Your task to perform on an android device: toggle javascript in the chrome app Image 0: 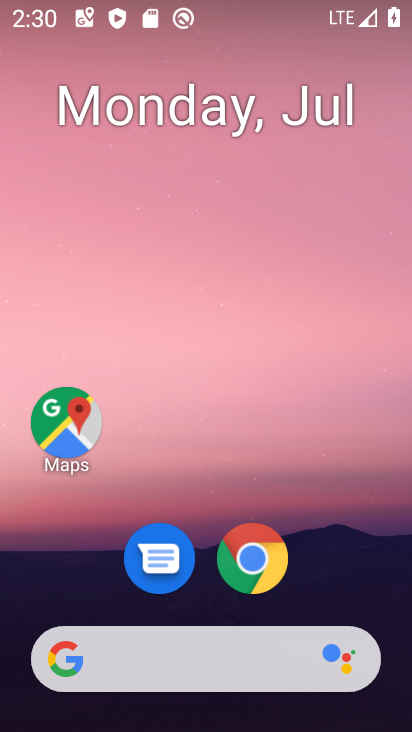
Step 0: press home button
Your task to perform on an android device: toggle javascript in the chrome app Image 1: 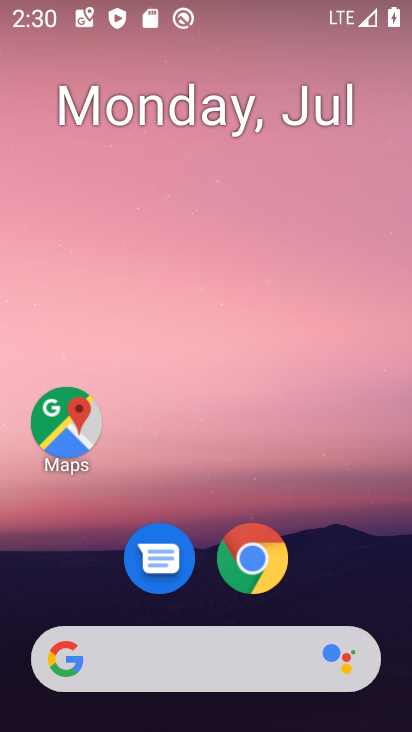
Step 1: drag from (364, 578) to (362, 190)
Your task to perform on an android device: toggle javascript in the chrome app Image 2: 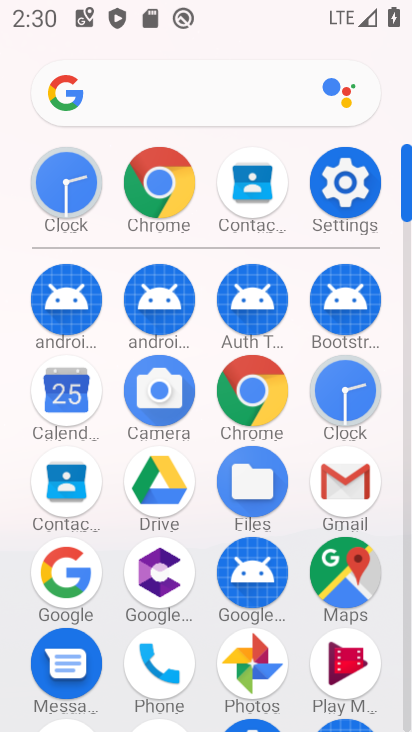
Step 2: click (264, 400)
Your task to perform on an android device: toggle javascript in the chrome app Image 3: 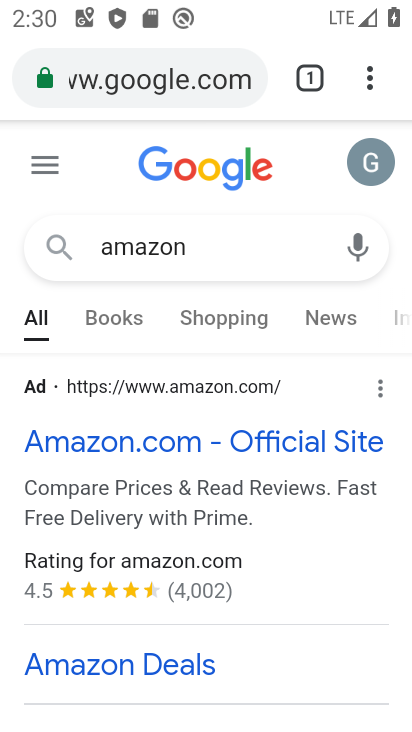
Step 3: click (367, 86)
Your task to perform on an android device: toggle javascript in the chrome app Image 4: 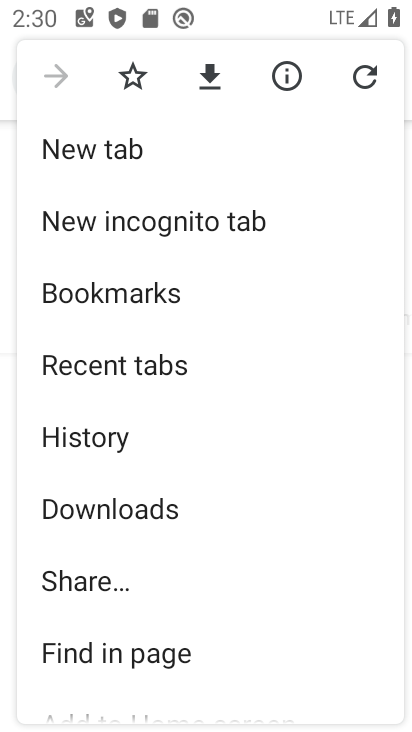
Step 4: drag from (315, 482) to (313, 355)
Your task to perform on an android device: toggle javascript in the chrome app Image 5: 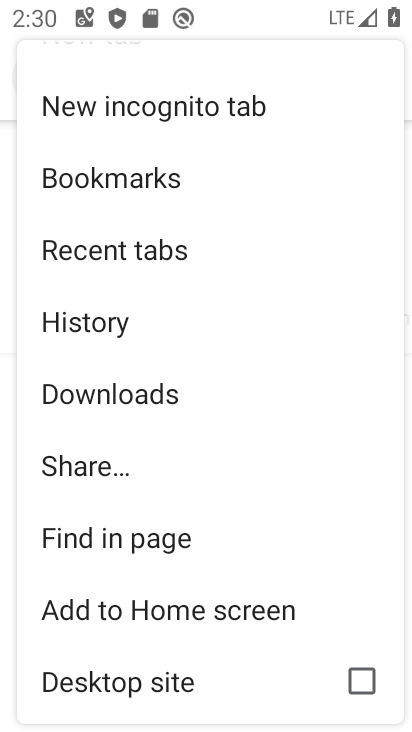
Step 5: drag from (284, 552) to (289, 403)
Your task to perform on an android device: toggle javascript in the chrome app Image 6: 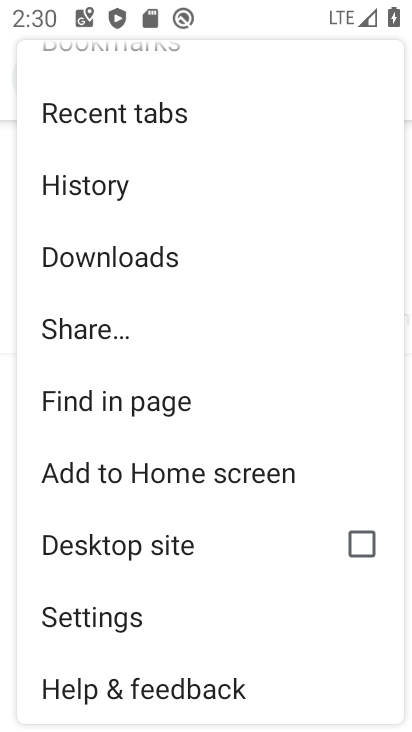
Step 6: drag from (254, 596) to (257, 436)
Your task to perform on an android device: toggle javascript in the chrome app Image 7: 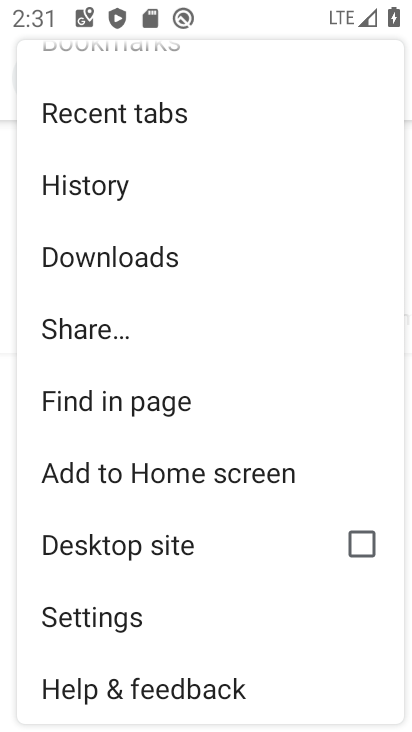
Step 7: click (217, 616)
Your task to perform on an android device: toggle javascript in the chrome app Image 8: 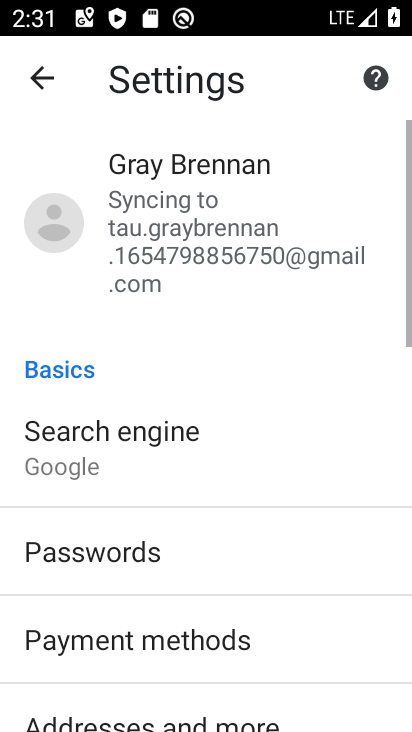
Step 8: drag from (327, 572) to (331, 459)
Your task to perform on an android device: toggle javascript in the chrome app Image 9: 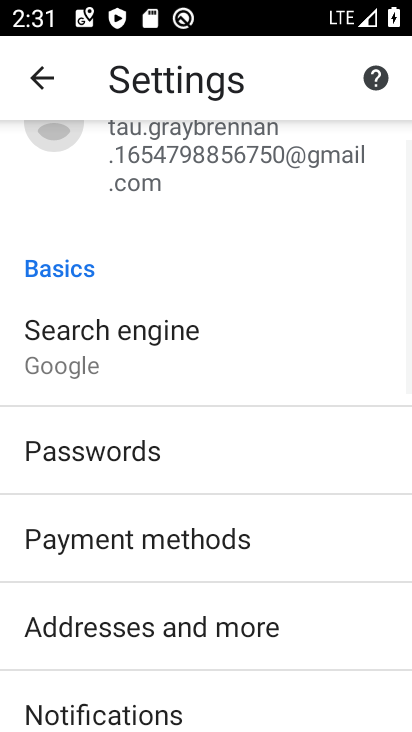
Step 9: drag from (323, 544) to (312, 447)
Your task to perform on an android device: toggle javascript in the chrome app Image 10: 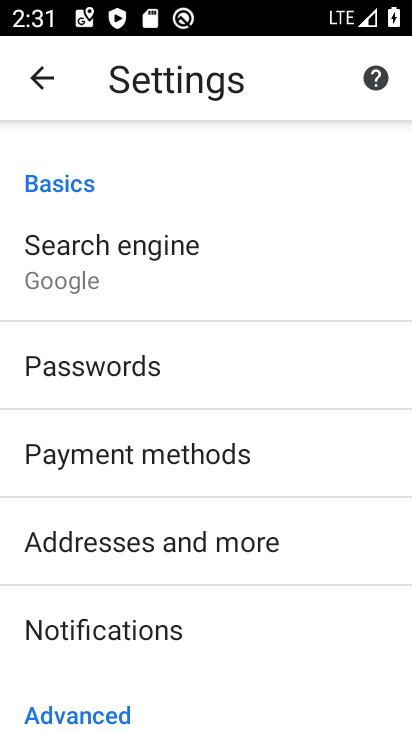
Step 10: drag from (328, 594) to (316, 489)
Your task to perform on an android device: toggle javascript in the chrome app Image 11: 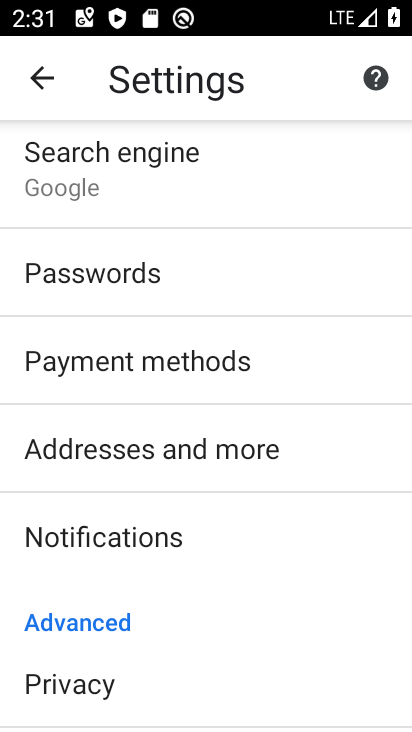
Step 11: drag from (316, 606) to (304, 502)
Your task to perform on an android device: toggle javascript in the chrome app Image 12: 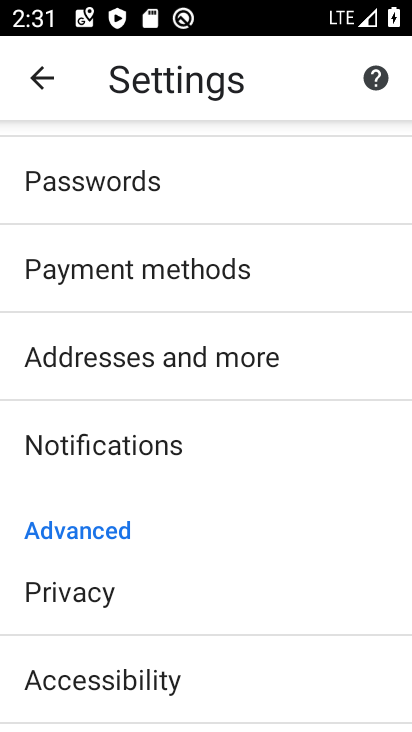
Step 12: drag from (305, 636) to (302, 523)
Your task to perform on an android device: toggle javascript in the chrome app Image 13: 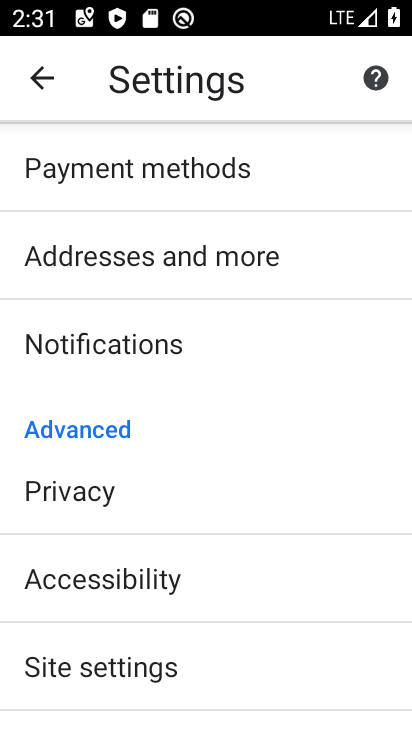
Step 13: click (288, 662)
Your task to perform on an android device: toggle javascript in the chrome app Image 14: 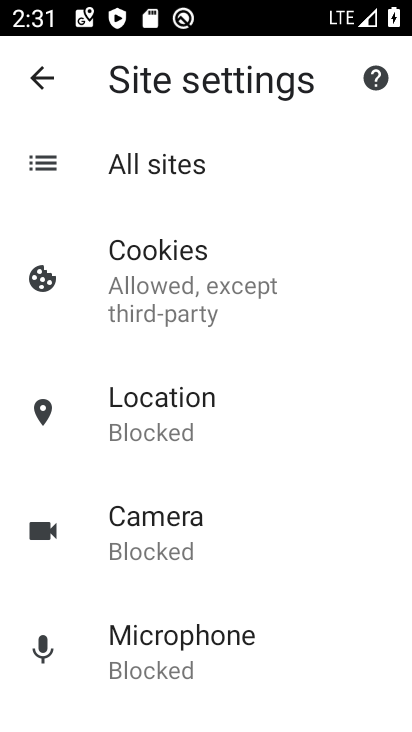
Step 14: drag from (316, 568) to (319, 495)
Your task to perform on an android device: toggle javascript in the chrome app Image 15: 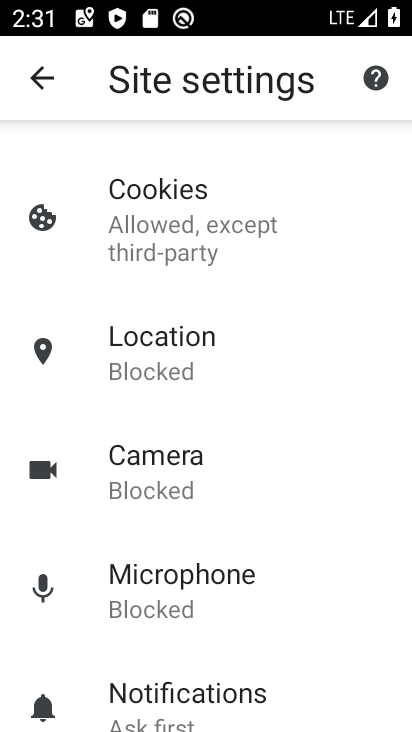
Step 15: drag from (317, 596) to (312, 501)
Your task to perform on an android device: toggle javascript in the chrome app Image 16: 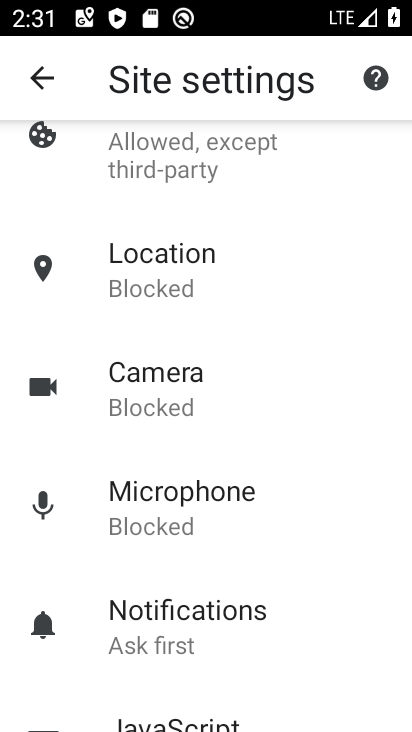
Step 16: drag from (330, 630) to (322, 507)
Your task to perform on an android device: toggle javascript in the chrome app Image 17: 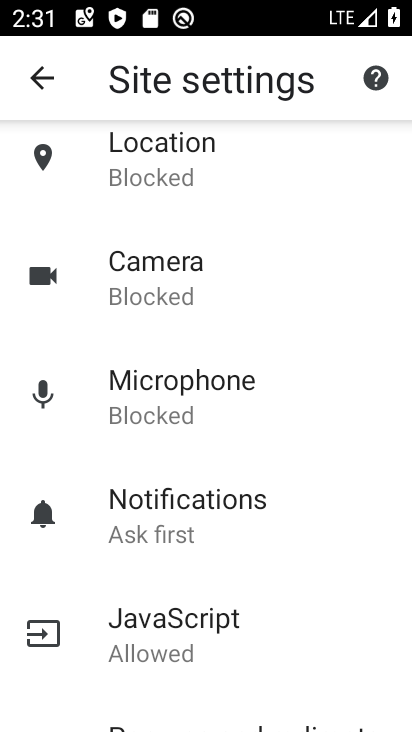
Step 17: drag from (325, 632) to (323, 509)
Your task to perform on an android device: toggle javascript in the chrome app Image 18: 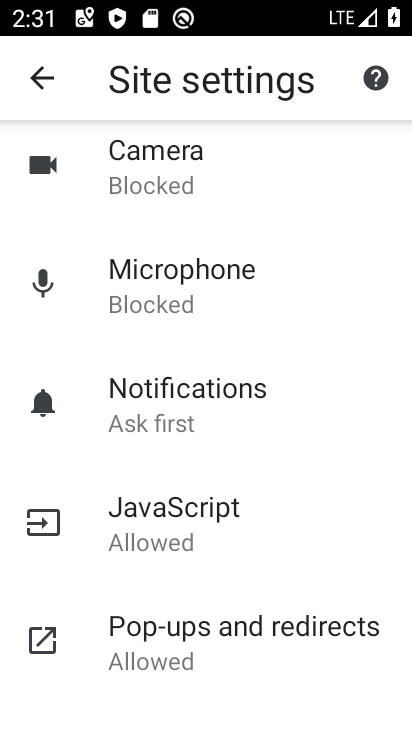
Step 18: drag from (331, 547) to (326, 429)
Your task to perform on an android device: toggle javascript in the chrome app Image 19: 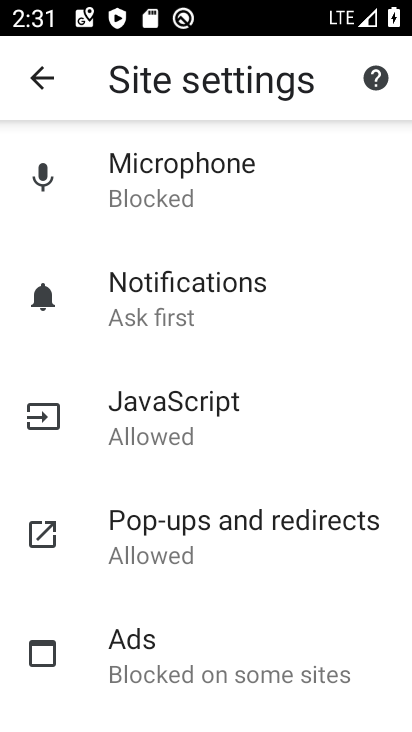
Step 19: drag from (315, 582) to (300, 438)
Your task to perform on an android device: toggle javascript in the chrome app Image 20: 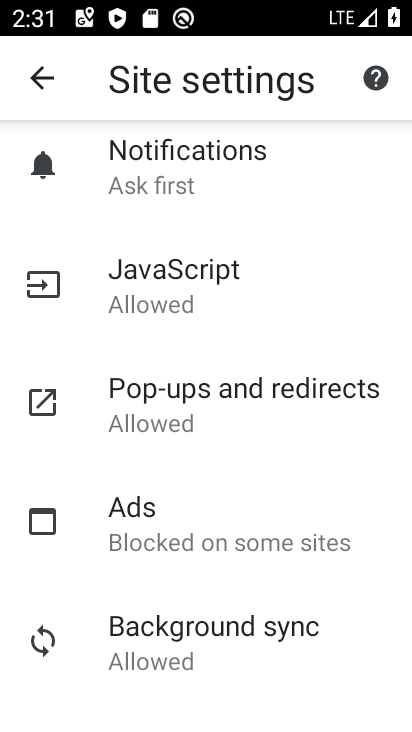
Step 20: click (247, 323)
Your task to perform on an android device: toggle javascript in the chrome app Image 21: 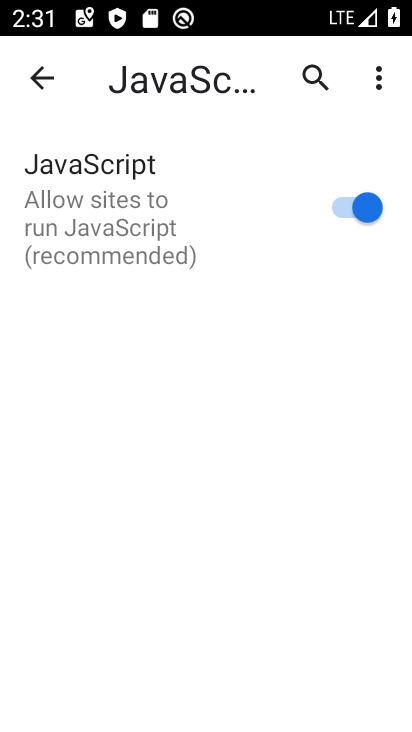
Step 21: click (345, 204)
Your task to perform on an android device: toggle javascript in the chrome app Image 22: 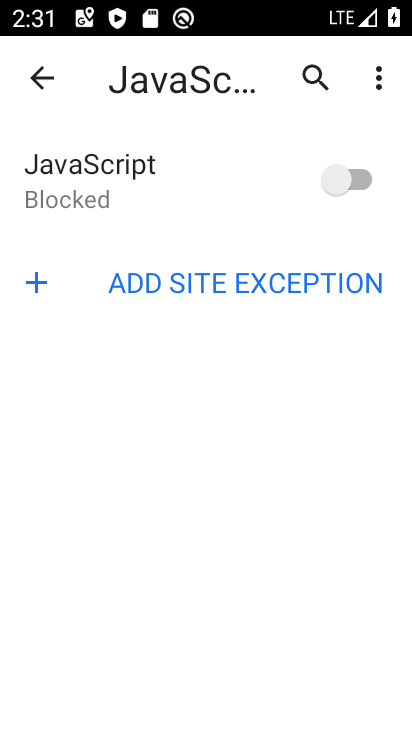
Step 22: task complete